Your task to perform on an android device: Open Google Chrome and open the bookmarks view Image 0: 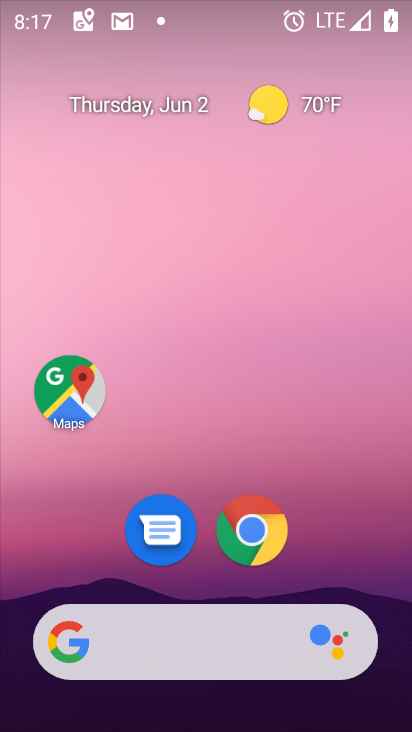
Step 0: click (242, 544)
Your task to perform on an android device: Open Google Chrome and open the bookmarks view Image 1: 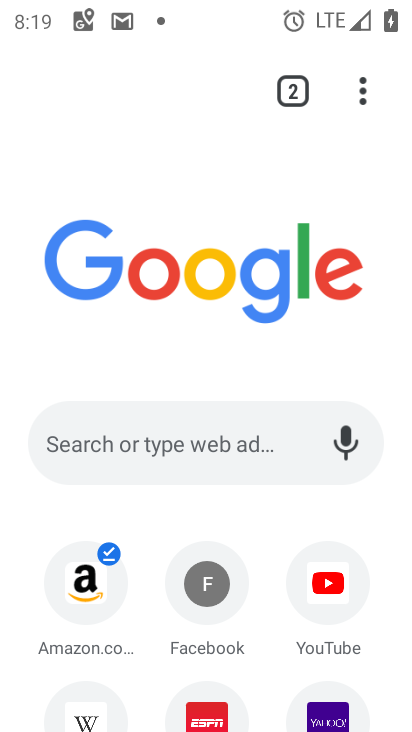
Step 1: click (364, 88)
Your task to perform on an android device: Open Google Chrome and open the bookmarks view Image 2: 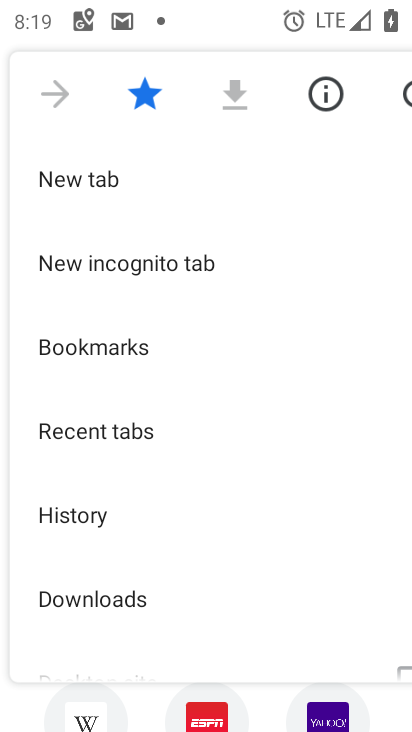
Step 2: drag from (149, 611) to (88, 182)
Your task to perform on an android device: Open Google Chrome and open the bookmarks view Image 3: 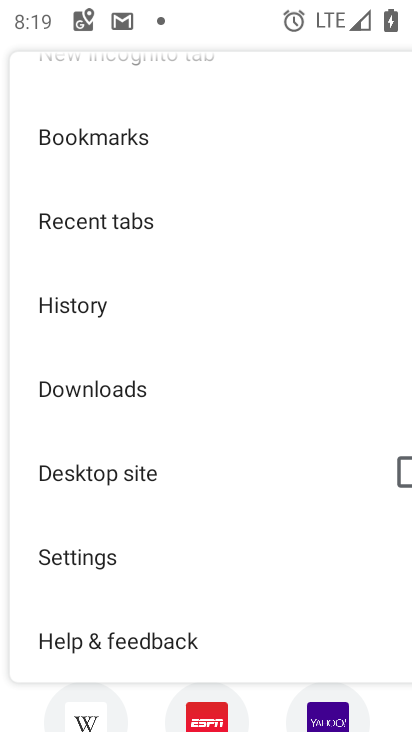
Step 3: click (88, 142)
Your task to perform on an android device: Open Google Chrome and open the bookmarks view Image 4: 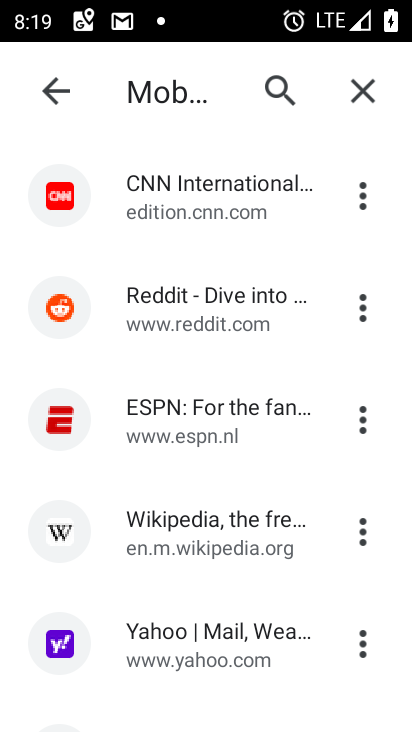
Step 4: task complete